Your task to perform on an android device: turn vacation reply on in the gmail app Image 0: 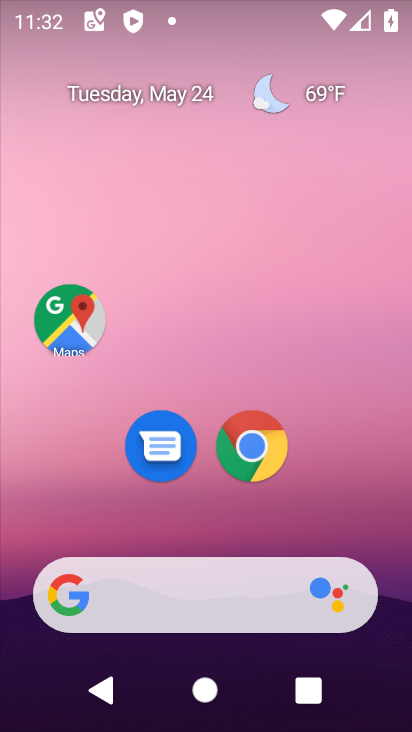
Step 0: drag from (212, 546) to (205, 142)
Your task to perform on an android device: turn vacation reply on in the gmail app Image 1: 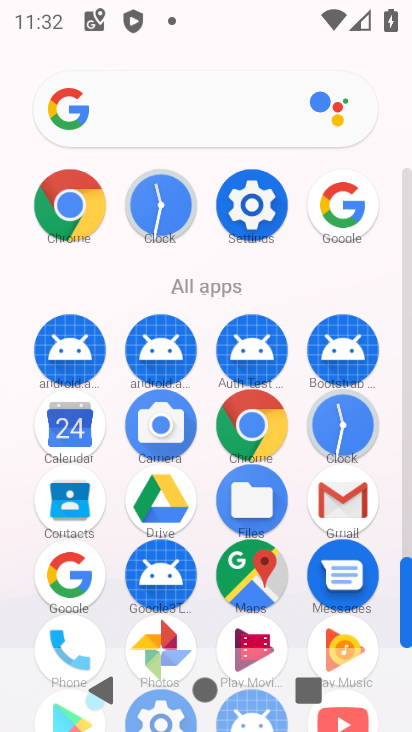
Step 1: click (320, 508)
Your task to perform on an android device: turn vacation reply on in the gmail app Image 2: 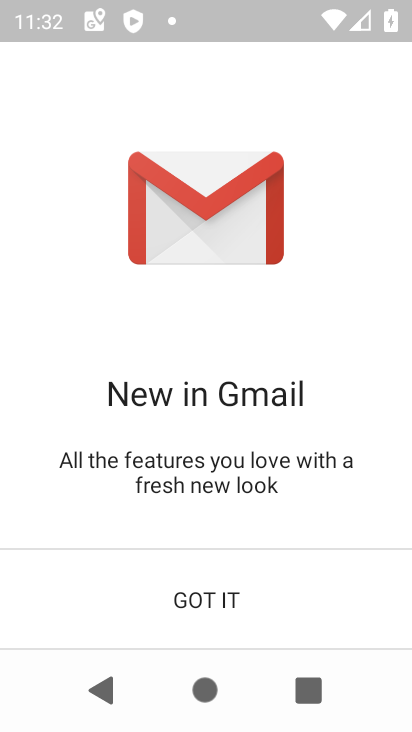
Step 2: click (217, 597)
Your task to perform on an android device: turn vacation reply on in the gmail app Image 3: 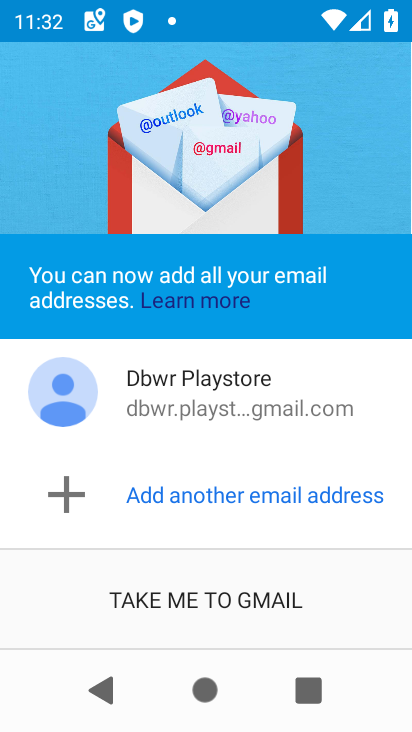
Step 3: click (208, 576)
Your task to perform on an android device: turn vacation reply on in the gmail app Image 4: 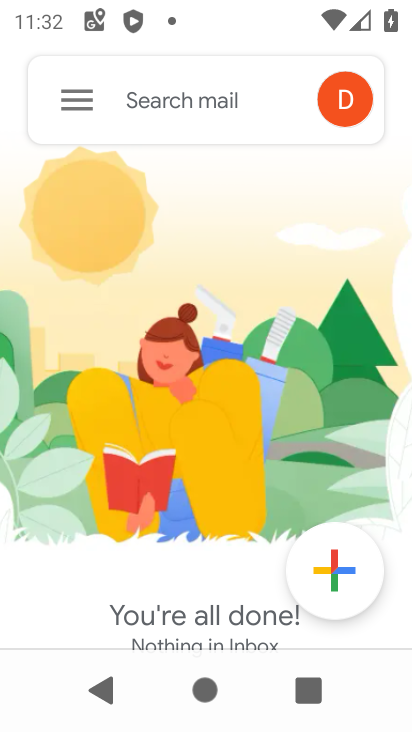
Step 4: drag from (221, 645) to (191, 387)
Your task to perform on an android device: turn vacation reply on in the gmail app Image 5: 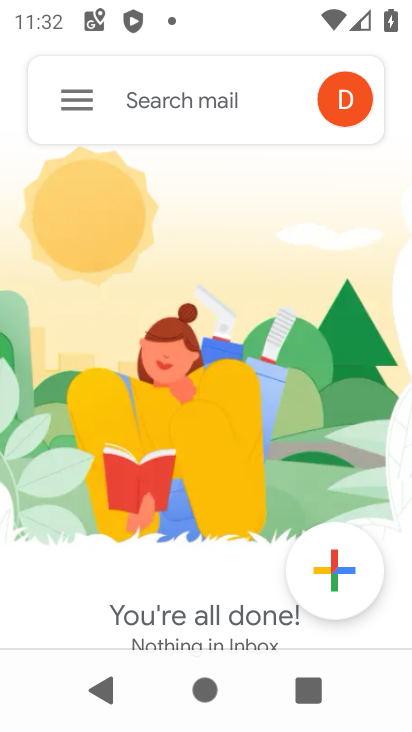
Step 5: click (75, 95)
Your task to perform on an android device: turn vacation reply on in the gmail app Image 6: 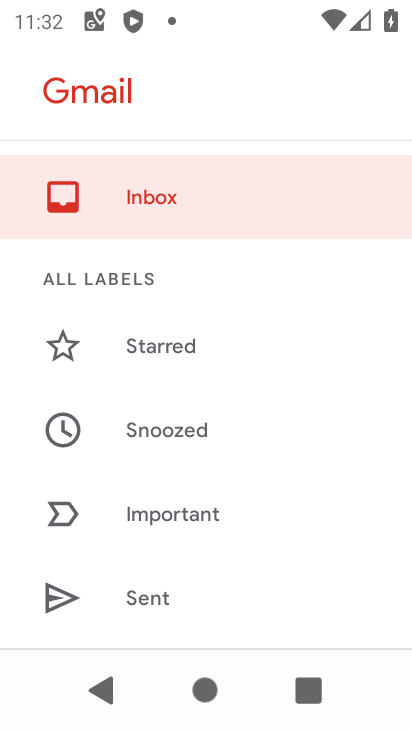
Step 6: drag from (156, 602) to (168, 252)
Your task to perform on an android device: turn vacation reply on in the gmail app Image 7: 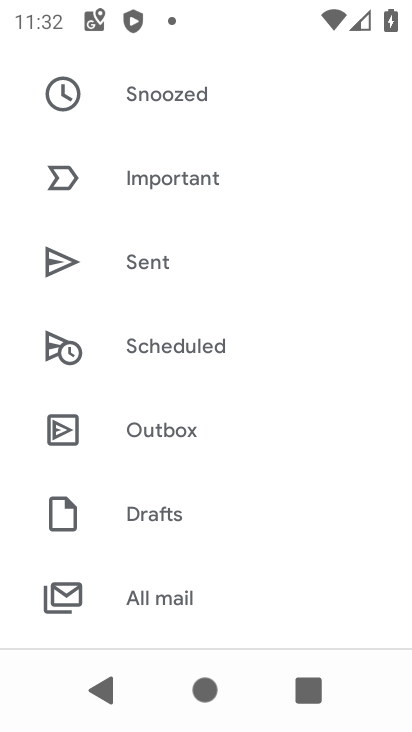
Step 7: drag from (176, 621) to (200, 280)
Your task to perform on an android device: turn vacation reply on in the gmail app Image 8: 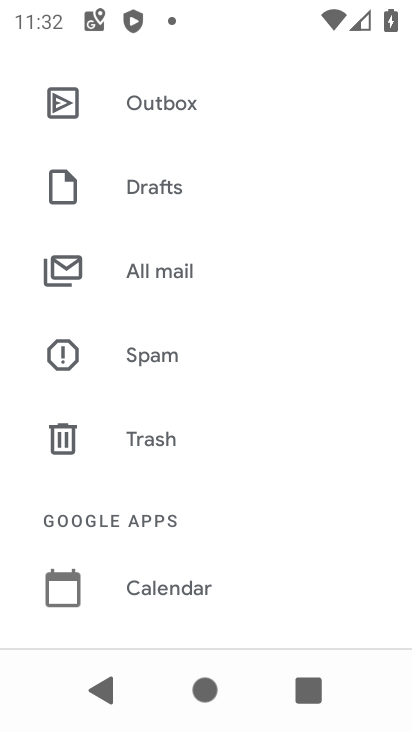
Step 8: drag from (220, 630) to (211, 364)
Your task to perform on an android device: turn vacation reply on in the gmail app Image 9: 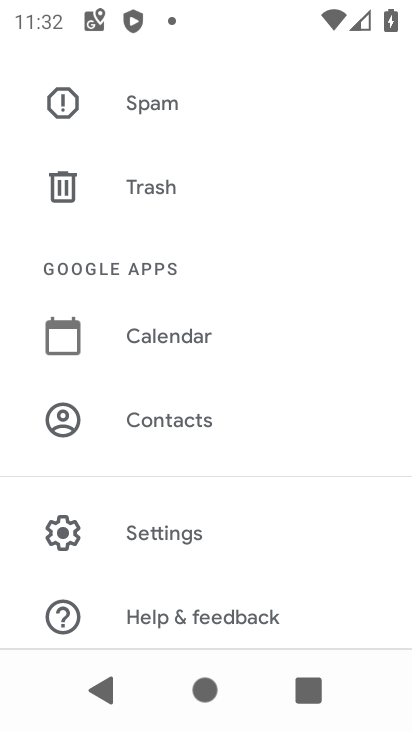
Step 9: click (136, 537)
Your task to perform on an android device: turn vacation reply on in the gmail app Image 10: 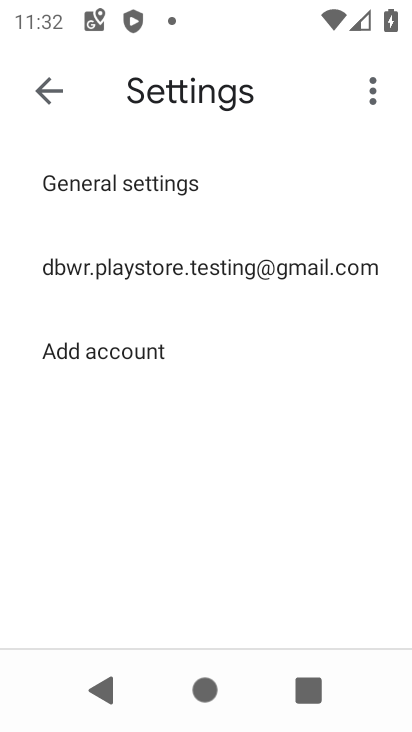
Step 10: click (140, 274)
Your task to perform on an android device: turn vacation reply on in the gmail app Image 11: 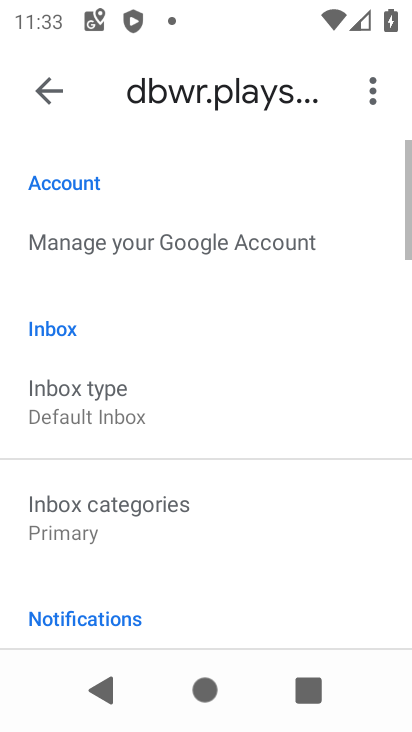
Step 11: drag from (148, 610) to (184, 103)
Your task to perform on an android device: turn vacation reply on in the gmail app Image 12: 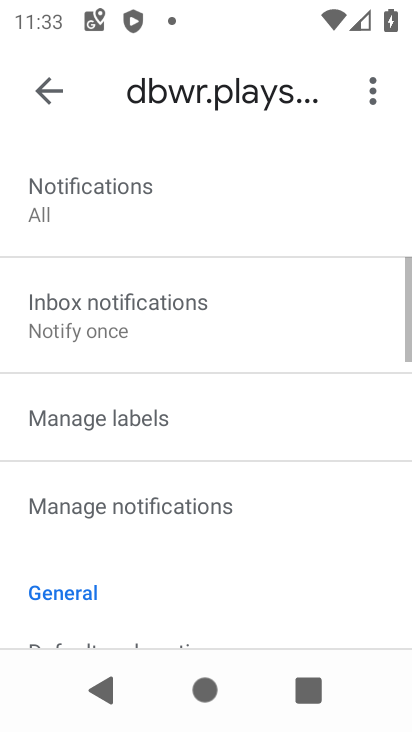
Step 12: drag from (197, 617) to (200, 231)
Your task to perform on an android device: turn vacation reply on in the gmail app Image 13: 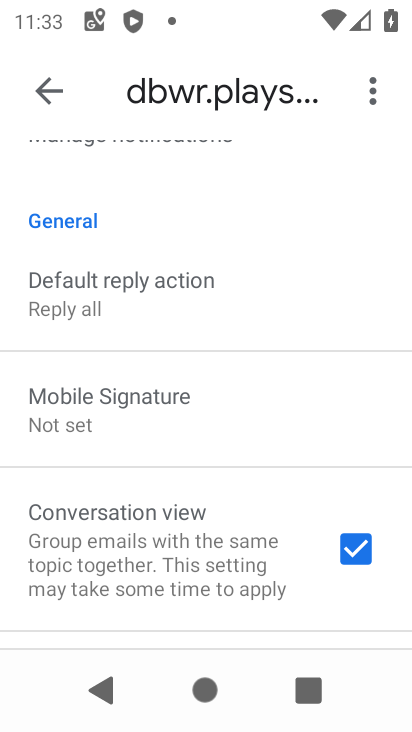
Step 13: drag from (159, 624) to (182, 280)
Your task to perform on an android device: turn vacation reply on in the gmail app Image 14: 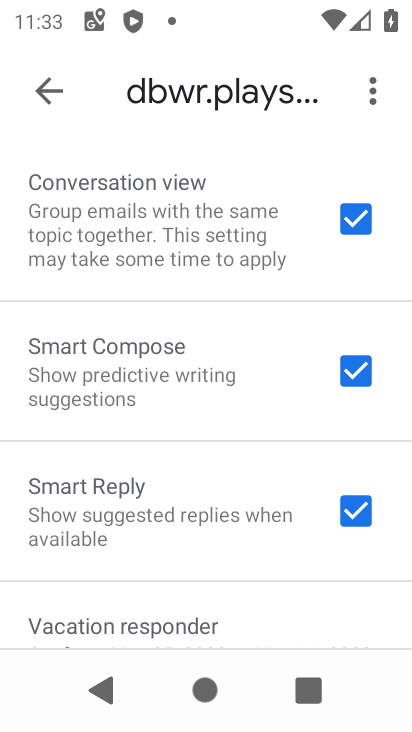
Step 14: click (169, 629)
Your task to perform on an android device: turn vacation reply on in the gmail app Image 15: 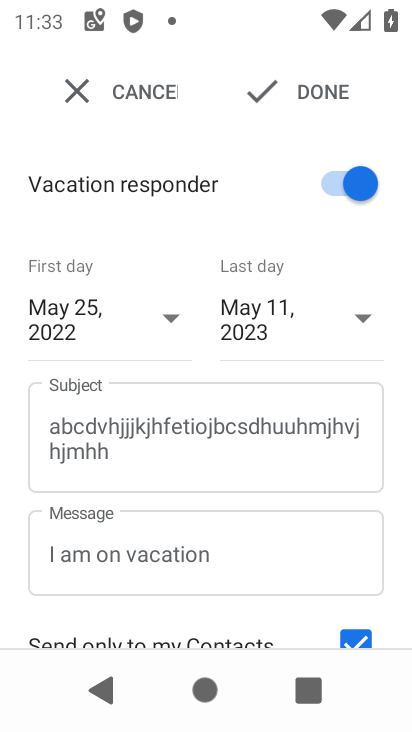
Step 15: click (318, 85)
Your task to perform on an android device: turn vacation reply on in the gmail app Image 16: 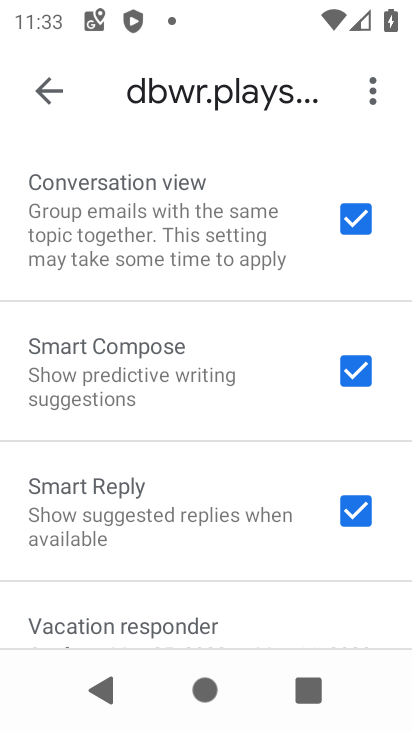
Step 16: task complete